Your task to perform on an android device: What's the weather going to be this weekend? Image 0: 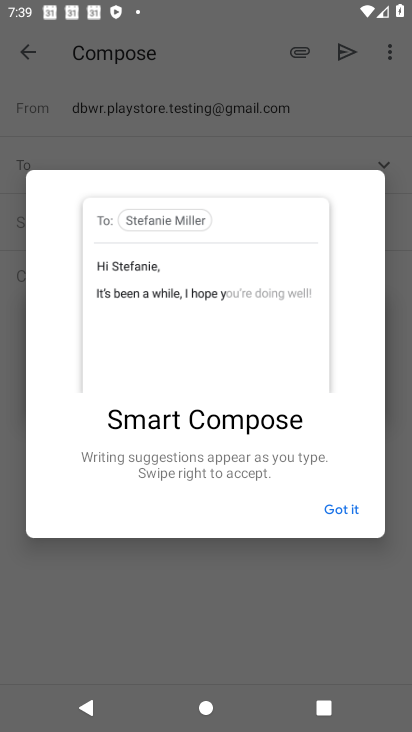
Step 0: press home button
Your task to perform on an android device: What's the weather going to be this weekend? Image 1: 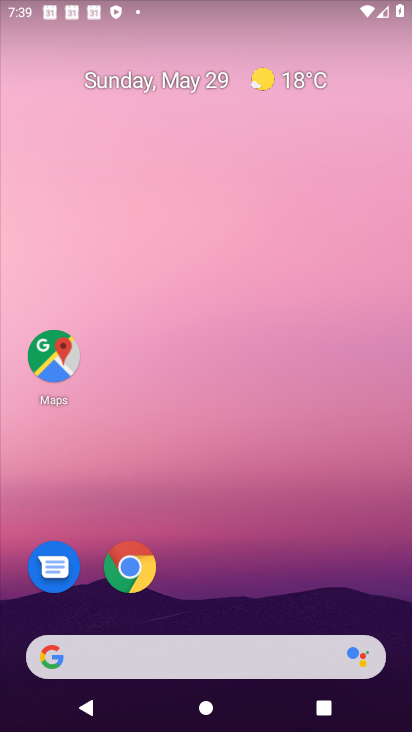
Step 1: drag from (256, 584) to (236, 84)
Your task to perform on an android device: What's the weather going to be this weekend? Image 2: 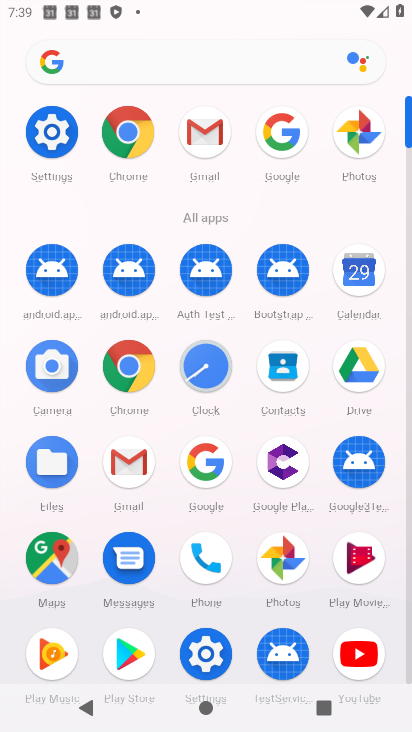
Step 2: click (279, 131)
Your task to perform on an android device: What's the weather going to be this weekend? Image 3: 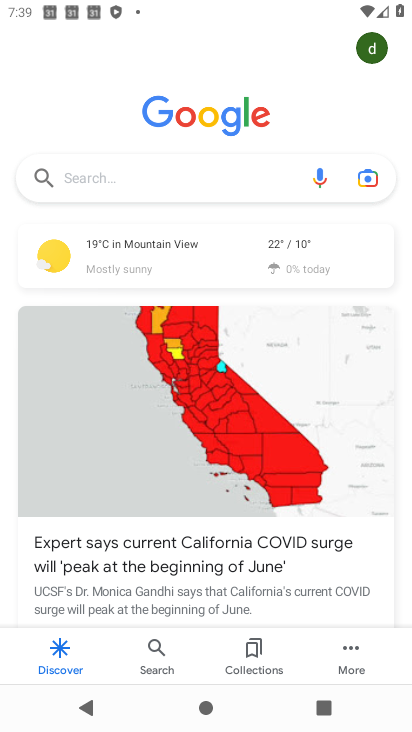
Step 3: click (210, 174)
Your task to perform on an android device: What's the weather going to be this weekend? Image 4: 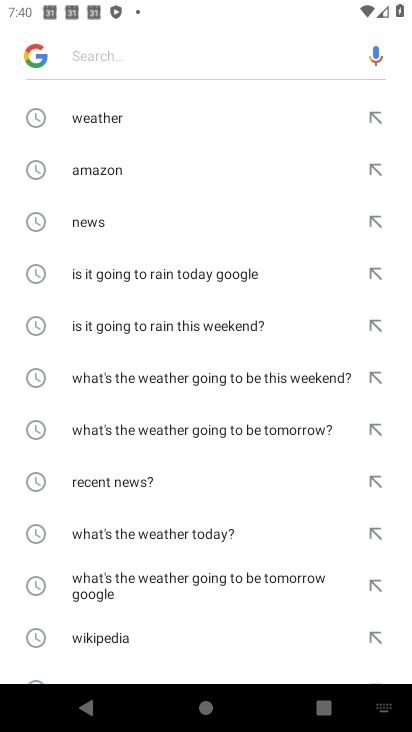
Step 4: type "What's the weather going to be this weekend??"
Your task to perform on an android device: What's the weather going to be this weekend? Image 5: 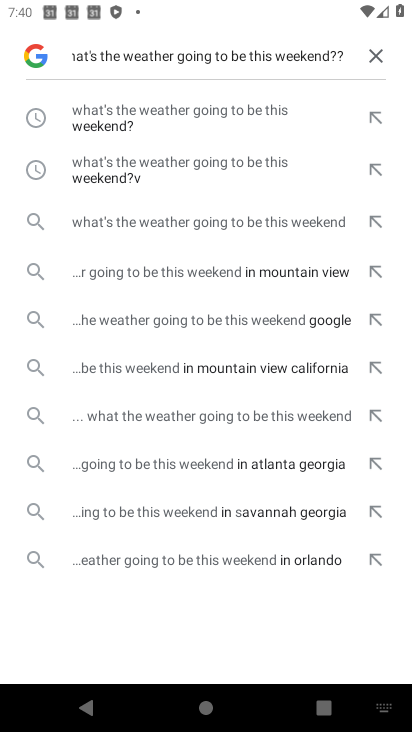
Step 5: click (139, 117)
Your task to perform on an android device: What's the weather going to be this weekend? Image 6: 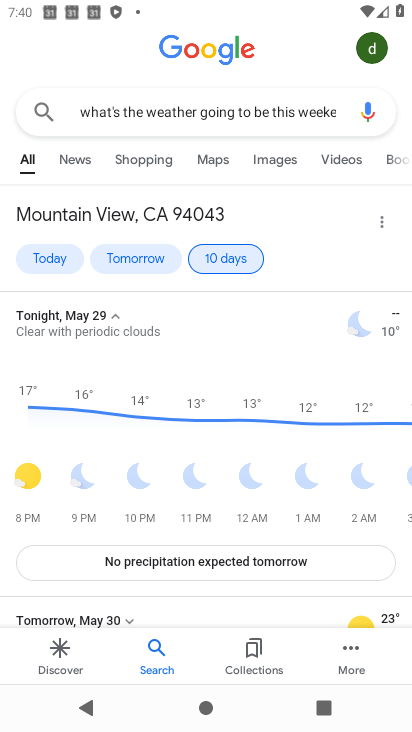
Step 6: task complete